Your task to perform on an android device: Search for Mexican restaurants on Maps Image 0: 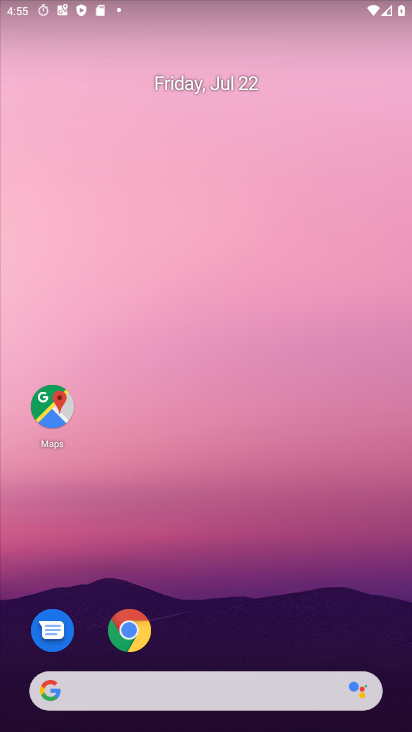
Step 0: drag from (239, 705) to (261, 115)
Your task to perform on an android device: Search for Mexican restaurants on Maps Image 1: 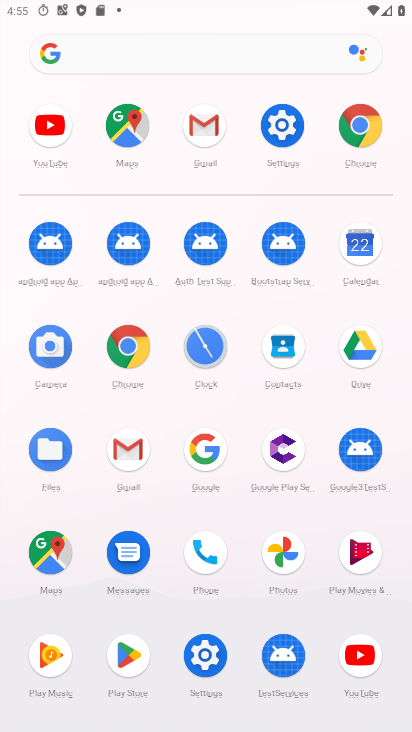
Step 1: click (60, 557)
Your task to perform on an android device: Search for Mexican restaurants on Maps Image 2: 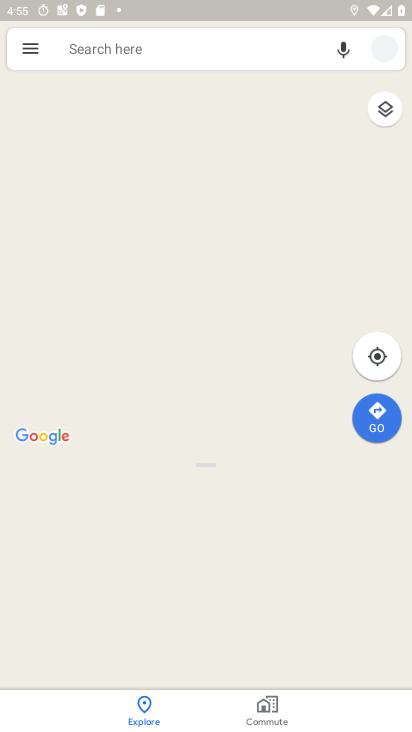
Step 2: click (138, 50)
Your task to perform on an android device: Search for Mexican restaurants on Maps Image 3: 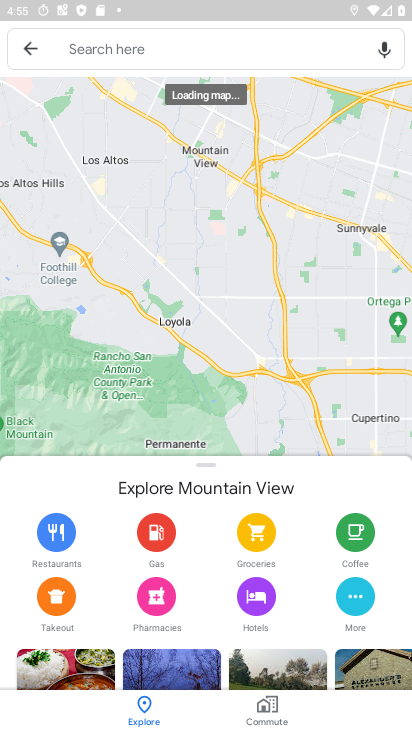
Step 3: click (139, 48)
Your task to perform on an android device: Search for Mexican restaurants on Maps Image 4: 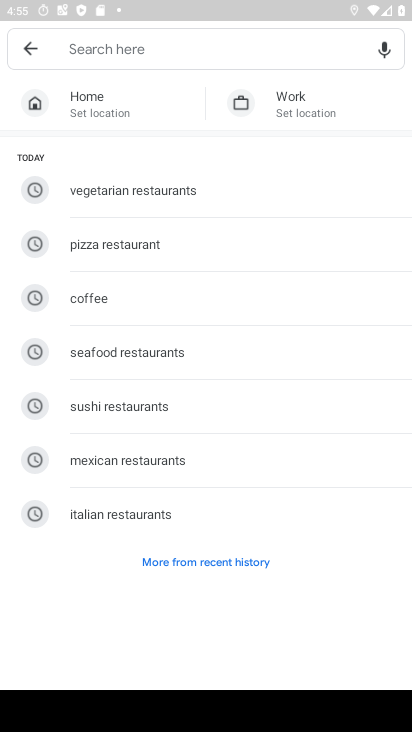
Step 4: click (106, 466)
Your task to perform on an android device: Search for Mexican restaurants on Maps Image 5: 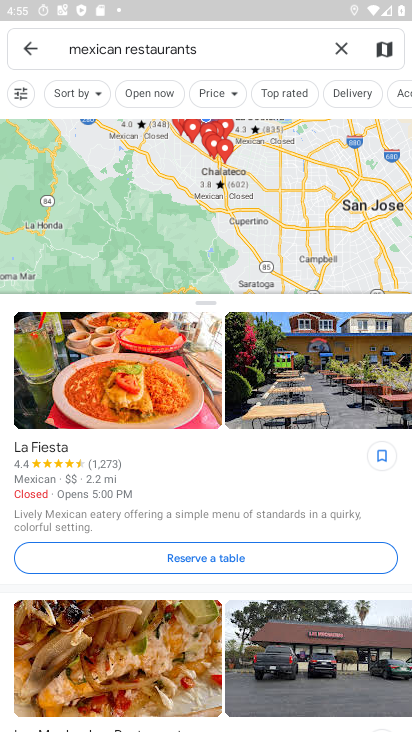
Step 5: task complete